Your task to perform on an android device: See recent photos Image 0: 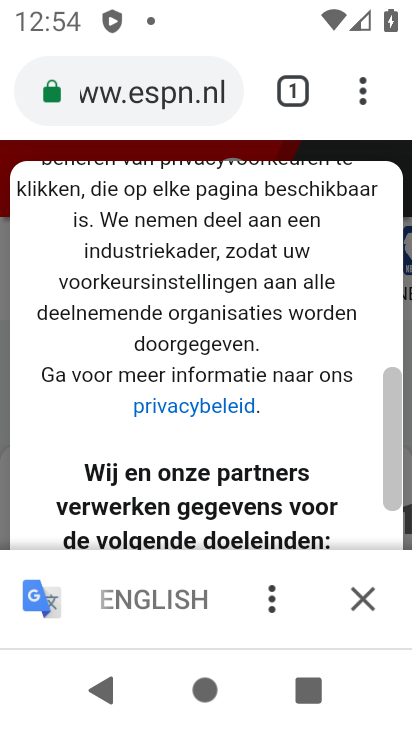
Step 0: press home button
Your task to perform on an android device: See recent photos Image 1: 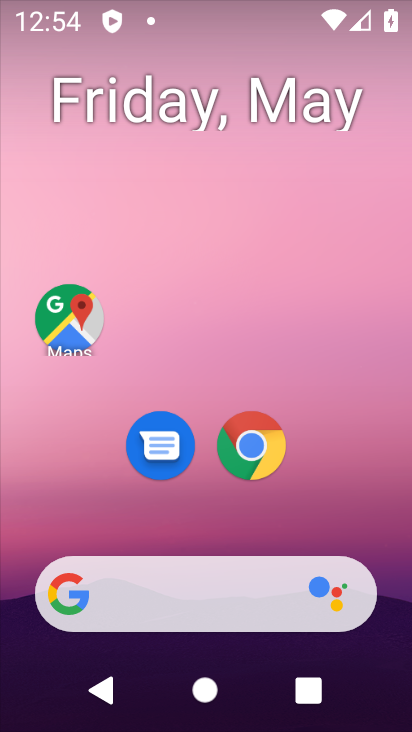
Step 1: drag from (229, 523) to (270, 2)
Your task to perform on an android device: See recent photos Image 2: 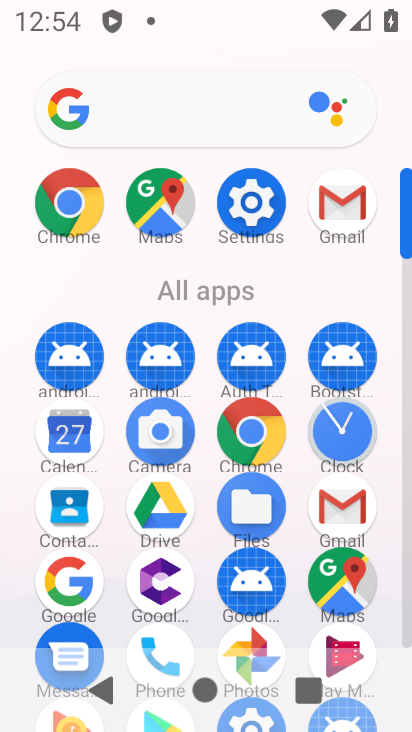
Step 2: drag from (202, 593) to (200, 177)
Your task to perform on an android device: See recent photos Image 3: 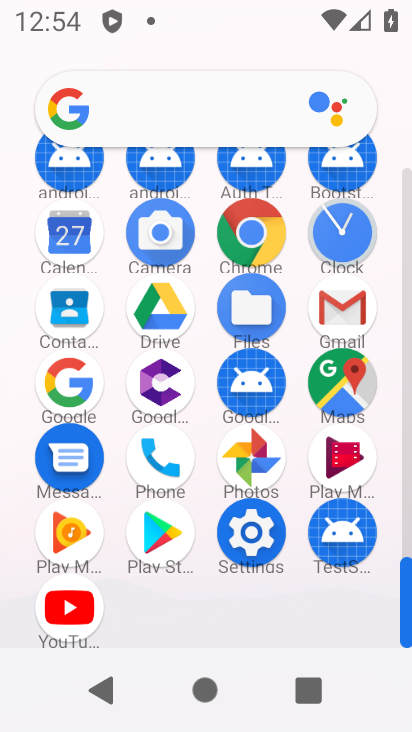
Step 3: click (241, 459)
Your task to perform on an android device: See recent photos Image 4: 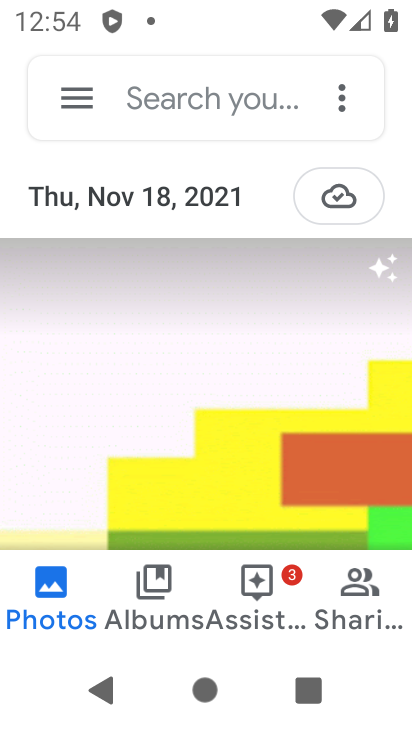
Step 4: task complete